Your task to perform on an android device: Open Google Chrome and open the bookmarks view Image 0: 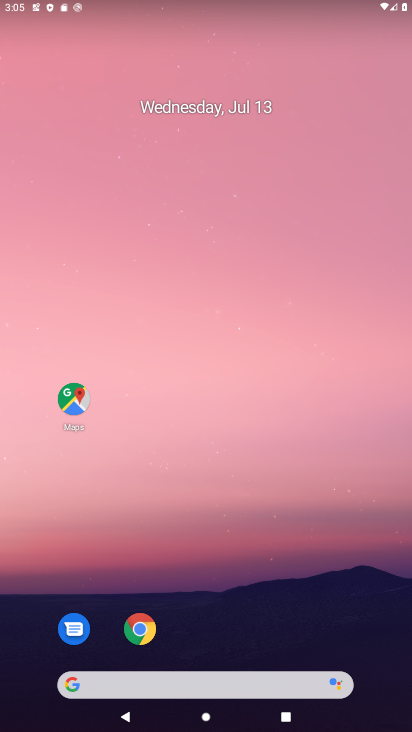
Step 0: click (157, 622)
Your task to perform on an android device: Open Google Chrome and open the bookmarks view Image 1: 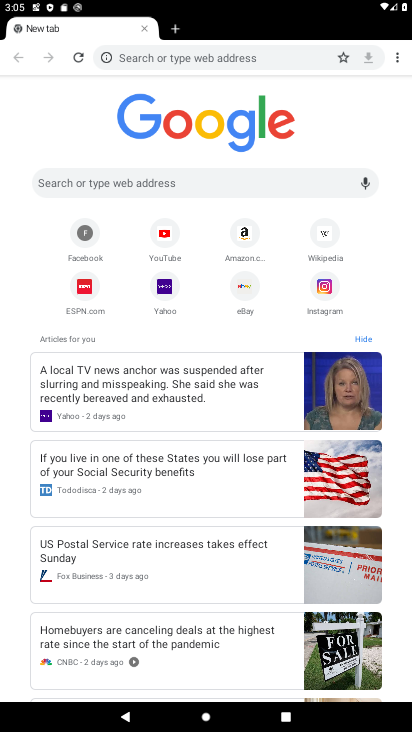
Step 1: click (143, 433)
Your task to perform on an android device: Open Google Chrome and open the bookmarks view Image 2: 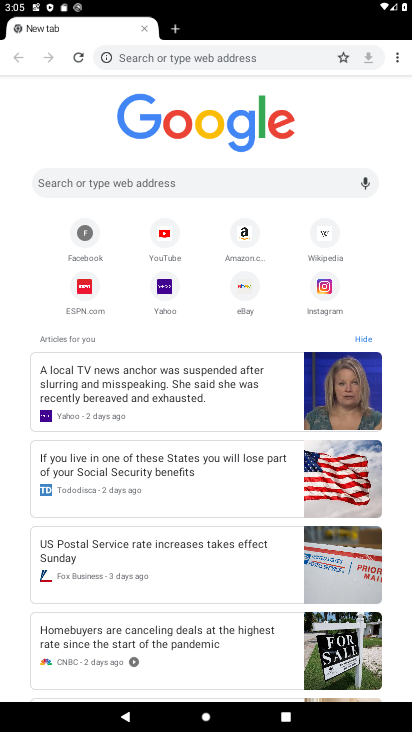
Step 2: click (143, 433)
Your task to perform on an android device: Open Google Chrome and open the bookmarks view Image 3: 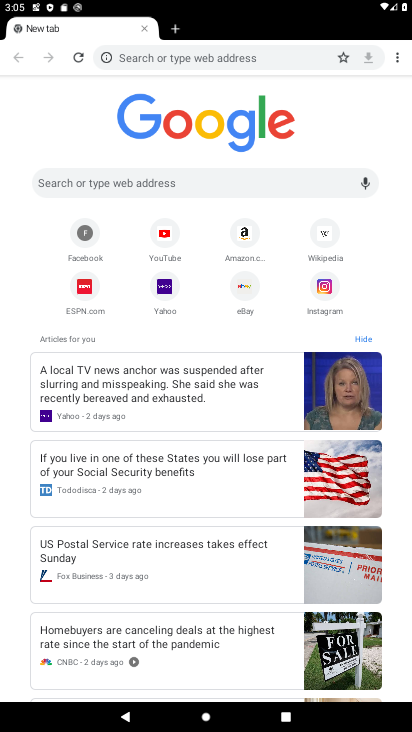
Step 3: click (396, 58)
Your task to perform on an android device: Open Google Chrome and open the bookmarks view Image 4: 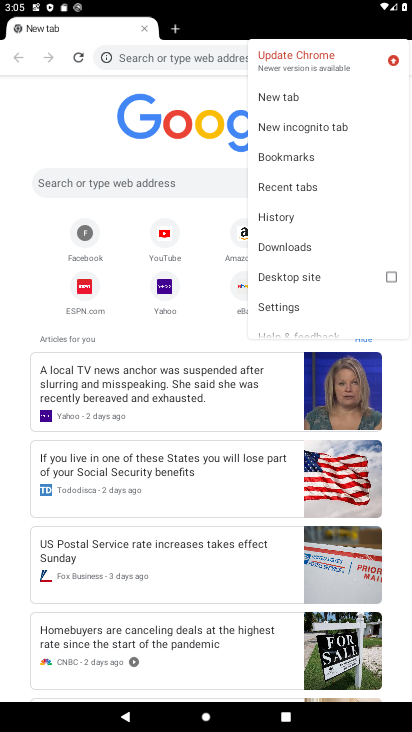
Step 4: click (396, 60)
Your task to perform on an android device: Open Google Chrome and open the bookmarks view Image 5: 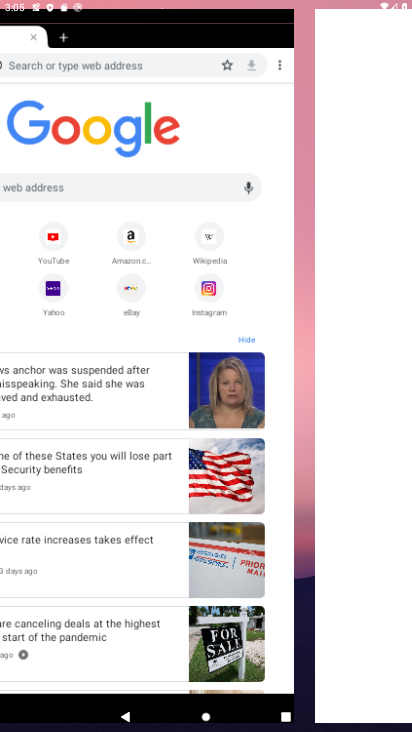
Step 5: click (395, 71)
Your task to perform on an android device: Open Google Chrome and open the bookmarks view Image 6: 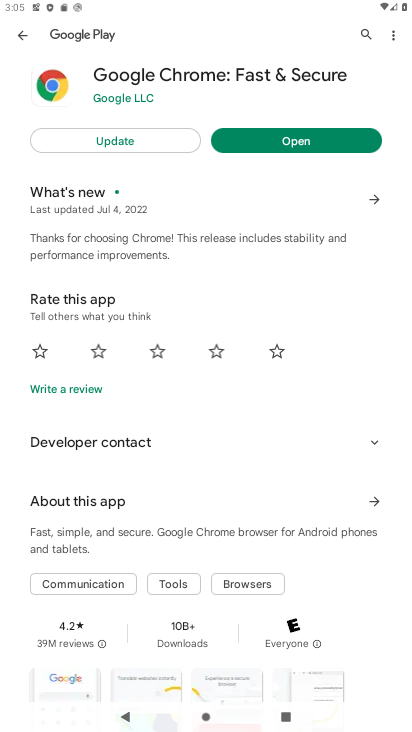
Step 6: press home button
Your task to perform on an android device: Open Google Chrome and open the bookmarks view Image 7: 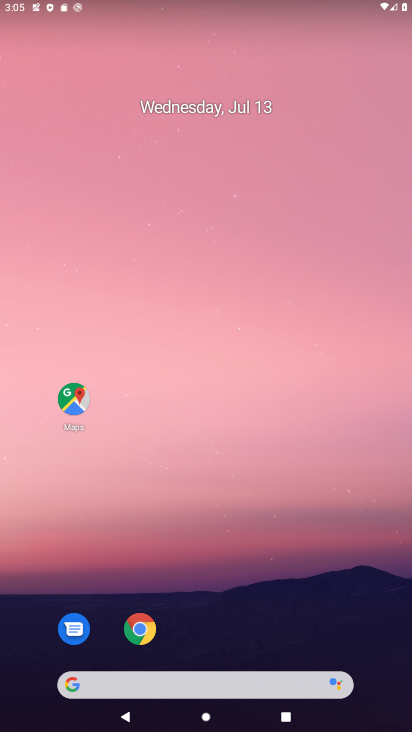
Step 7: click (136, 637)
Your task to perform on an android device: Open Google Chrome and open the bookmarks view Image 8: 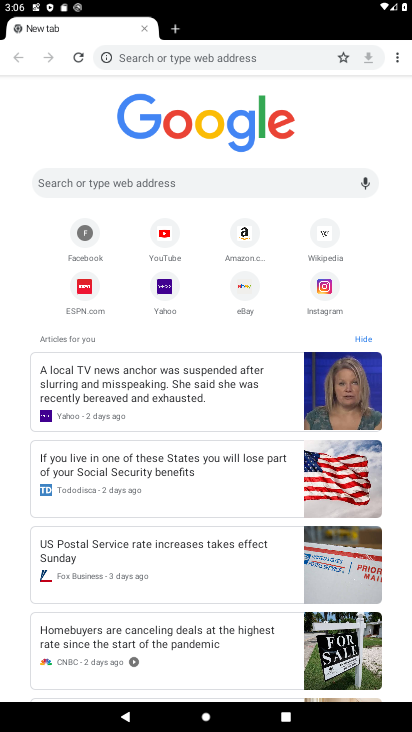
Step 8: click (400, 62)
Your task to perform on an android device: Open Google Chrome and open the bookmarks view Image 9: 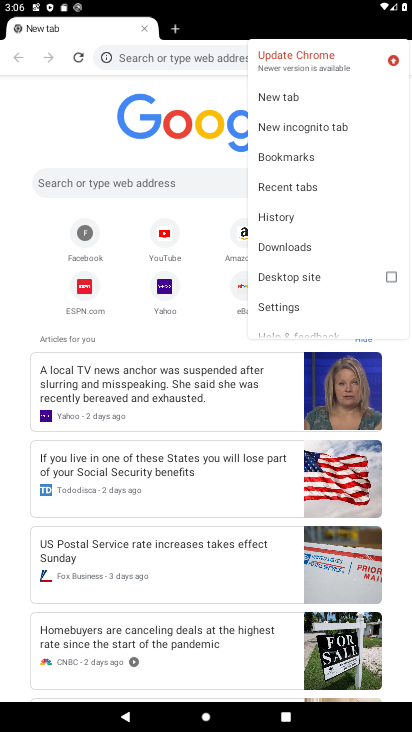
Step 9: click (280, 156)
Your task to perform on an android device: Open Google Chrome and open the bookmarks view Image 10: 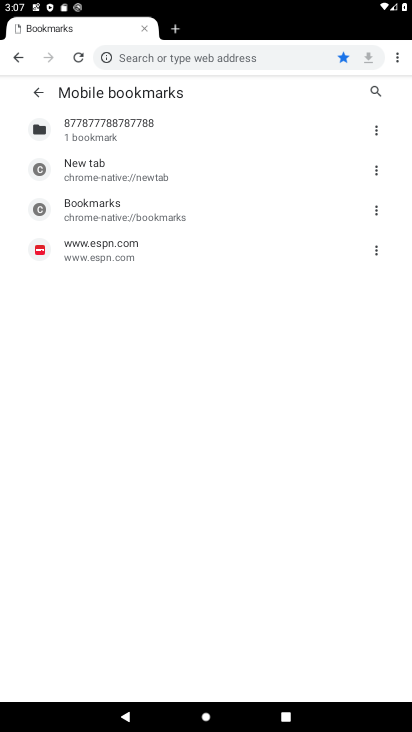
Step 10: task complete